Your task to perform on an android device: Turn on the flashlight Image 0: 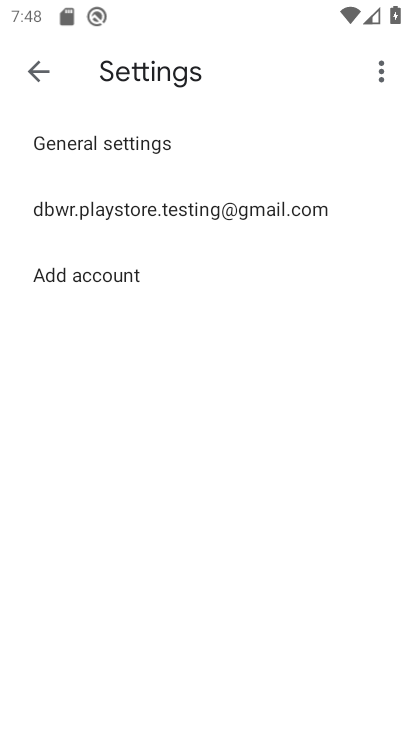
Step 0: click (23, 71)
Your task to perform on an android device: Turn on the flashlight Image 1: 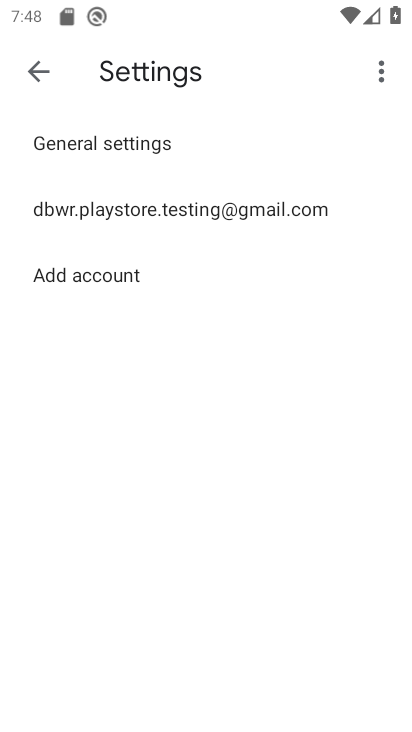
Step 1: press home button
Your task to perform on an android device: Turn on the flashlight Image 2: 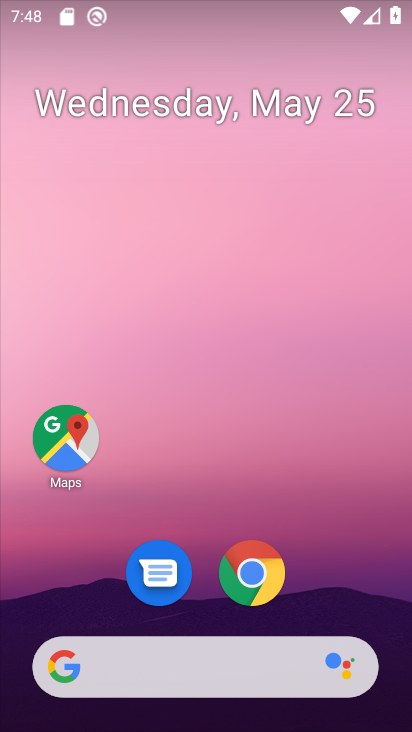
Step 2: drag from (393, 695) to (322, 299)
Your task to perform on an android device: Turn on the flashlight Image 3: 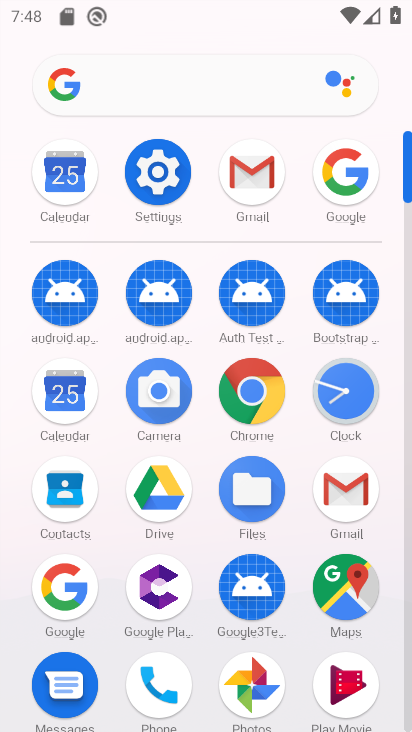
Step 3: click (172, 166)
Your task to perform on an android device: Turn on the flashlight Image 4: 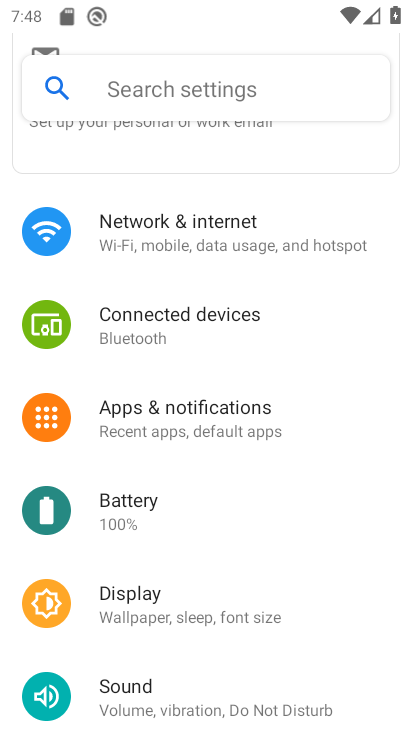
Step 4: click (119, 595)
Your task to perform on an android device: Turn on the flashlight Image 5: 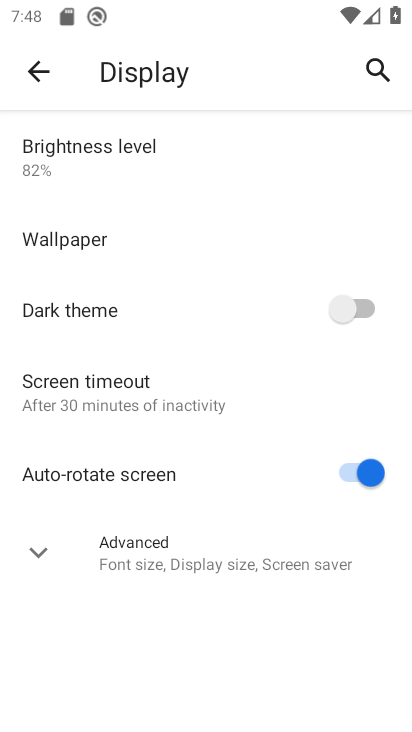
Step 5: task complete